Your task to perform on an android device: Play the last video I watched on Youtube Image 0: 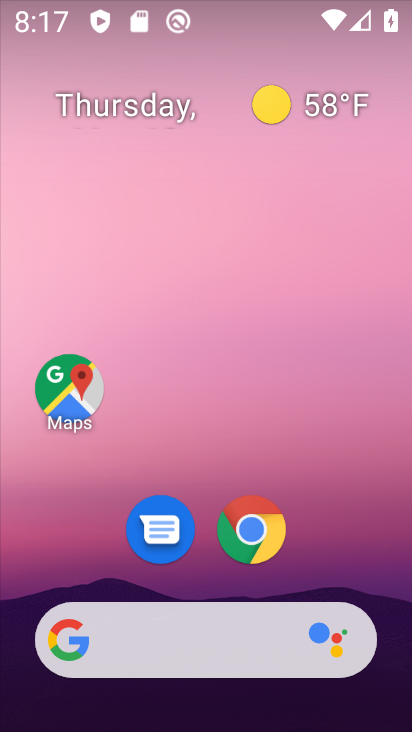
Step 0: drag from (207, 561) to (229, 121)
Your task to perform on an android device: Play the last video I watched on Youtube Image 1: 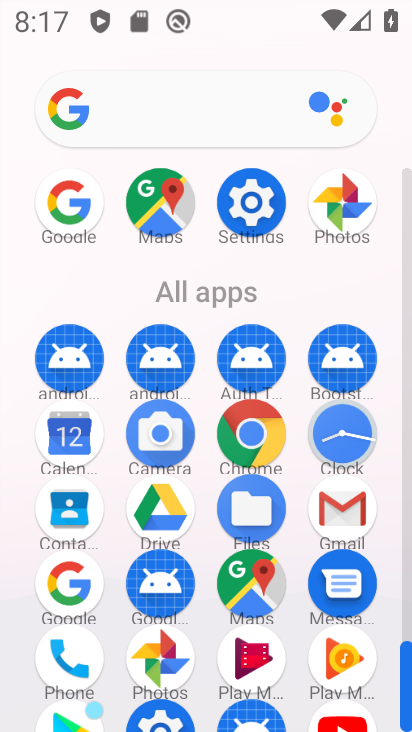
Step 1: drag from (205, 575) to (220, 110)
Your task to perform on an android device: Play the last video I watched on Youtube Image 2: 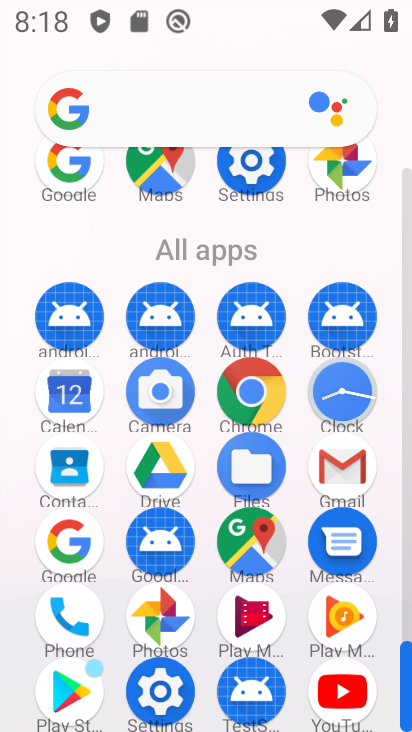
Step 2: click (334, 687)
Your task to perform on an android device: Play the last video I watched on Youtube Image 3: 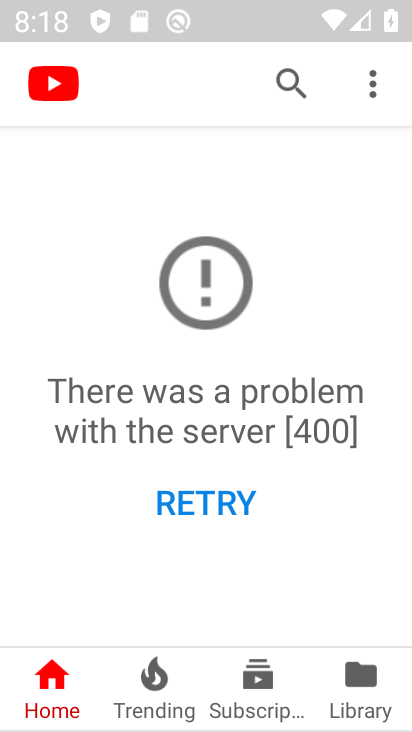
Step 3: click (283, 82)
Your task to perform on an android device: Play the last video I watched on Youtube Image 4: 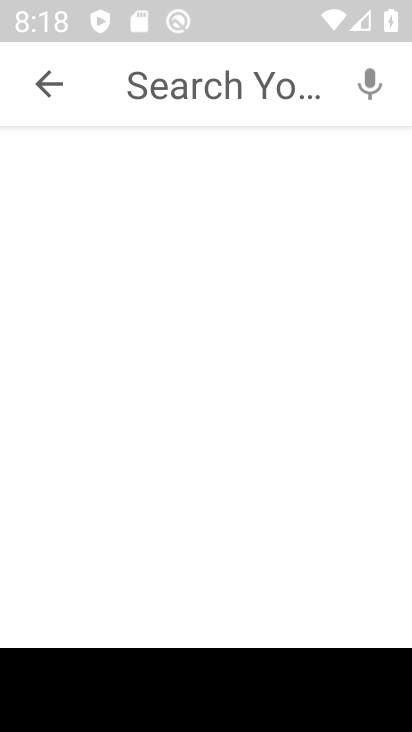
Step 4: task complete